Your task to perform on an android device: Open the phone app and click the voicemail tab. Image 0: 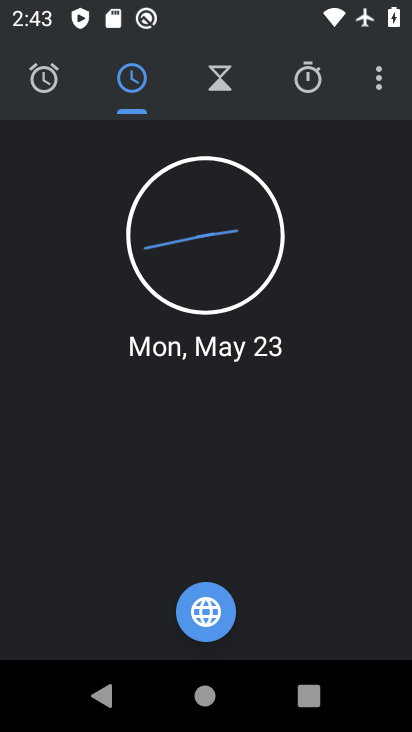
Step 0: press home button
Your task to perform on an android device: Open the phone app and click the voicemail tab. Image 1: 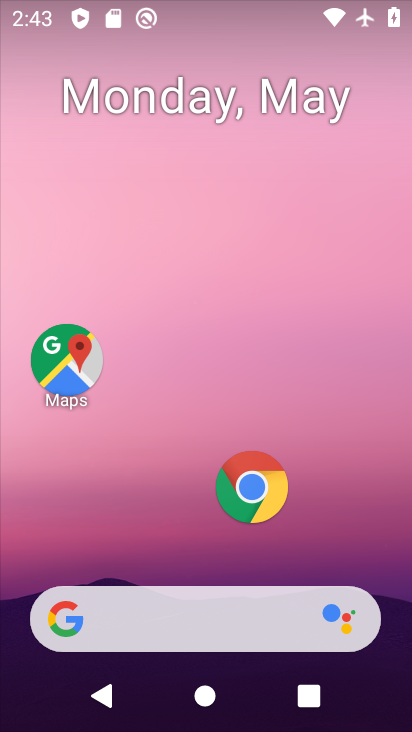
Step 1: drag from (307, 554) to (314, 46)
Your task to perform on an android device: Open the phone app and click the voicemail tab. Image 2: 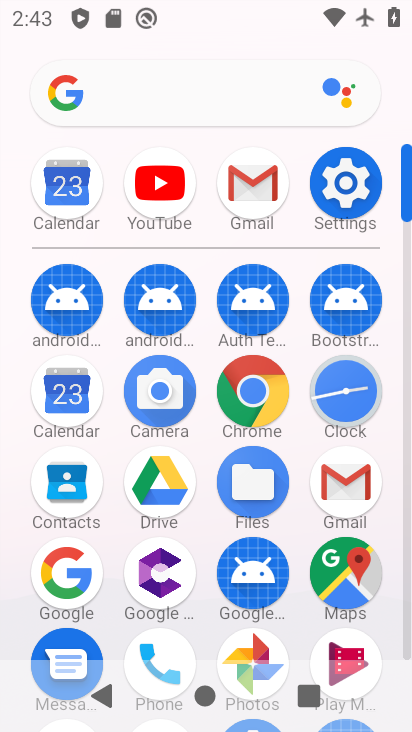
Step 2: drag from (202, 616) to (230, 299)
Your task to perform on an android device: Open the phone app and click the voicemail tab. Image 3: 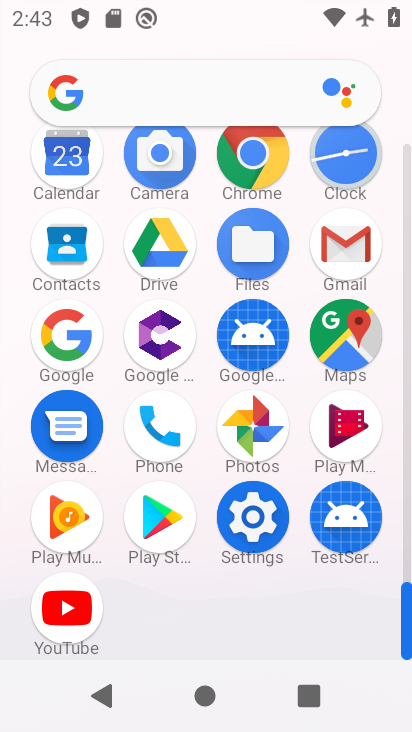
Step 3: click (155, 432)
Your task to perform on an android device: Open the phone app and click the voicemail tab. Image 4: 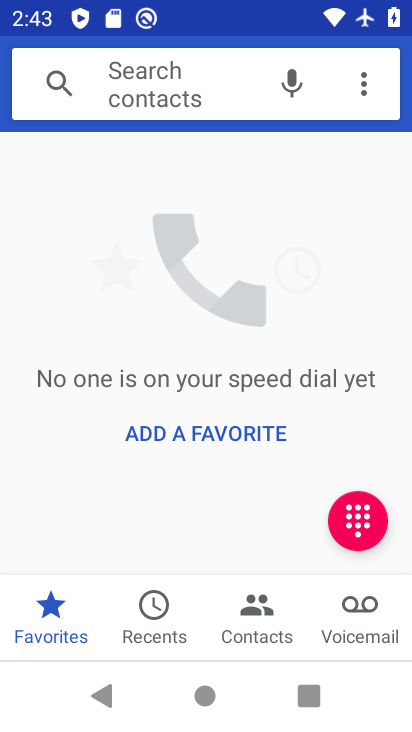
Step 4: click (329, 617)
Your task to perform on an android device: Open the phone app and click the voicemail tab. Image 5: 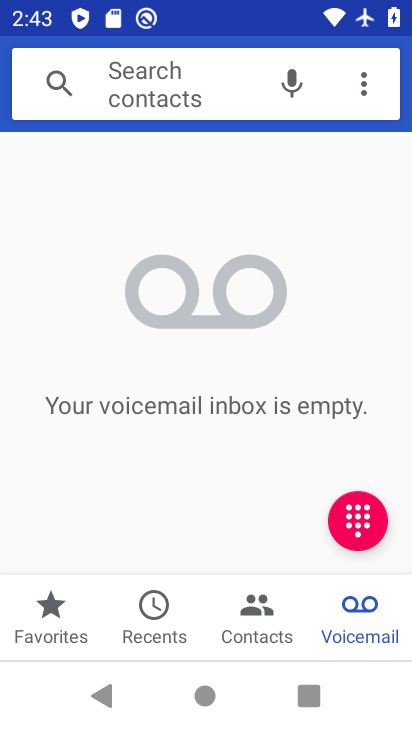
Step 5: task complete